Your task to perform on an android device: stop showing notifications on the lock screen Image 0: 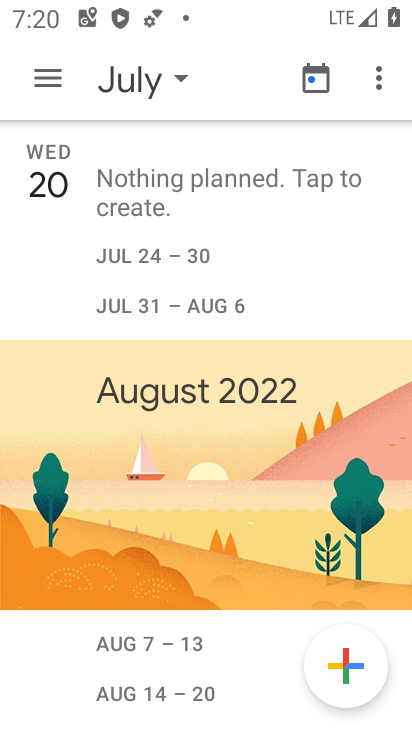
Step 0: press back button
Your task to perform on an android device: stop showing notifications on the lock screen Image 1: 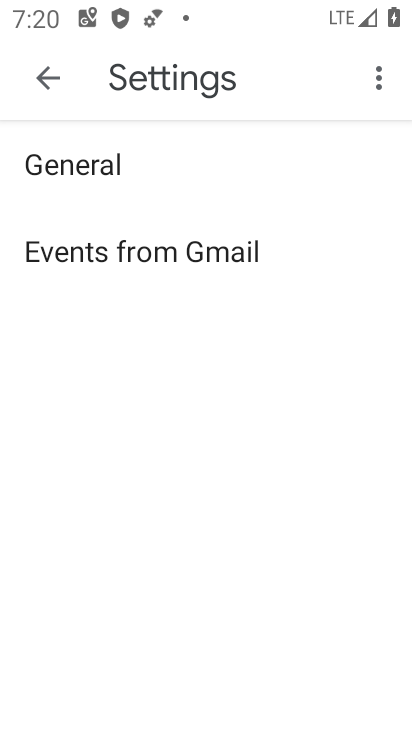
Step 1: press back button
Your task to perform on an android device: stop showing notifications on the lock screen Image 2: 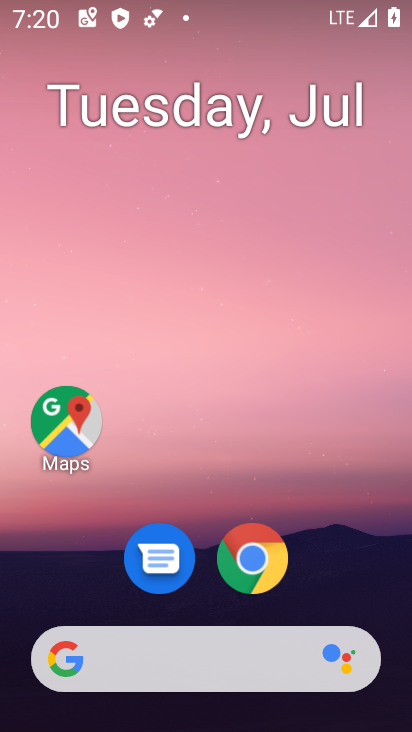
Step 2: drag from (107, 497) to (188, 9)
Your task to perform on an android device: stop showing notifications on the lock screen Image 3: 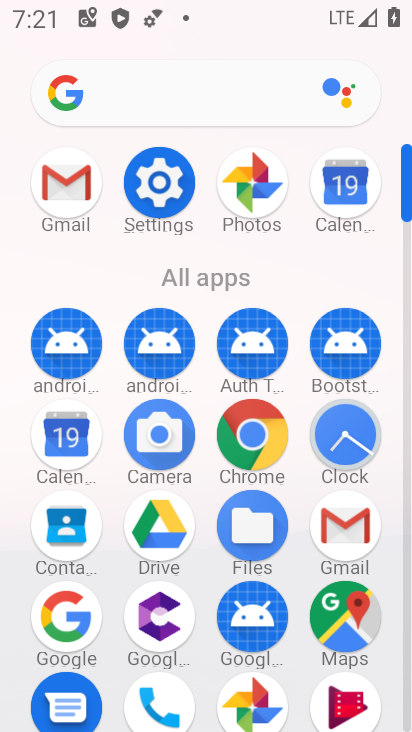
Step 3: click (156, 178)
Your task to perform on an android device: stop showing notifications on the lock screen Image 4: 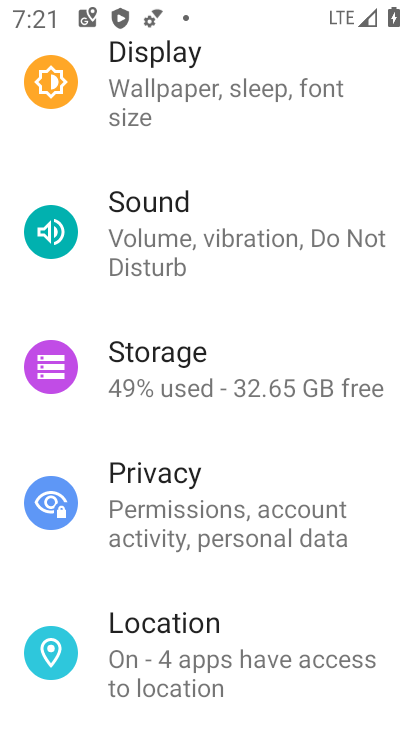
Step 4: drag from (175, 219) to (168, 700)
Your task to perform on an android device: stop showing notifications on the lock screen Image 5: 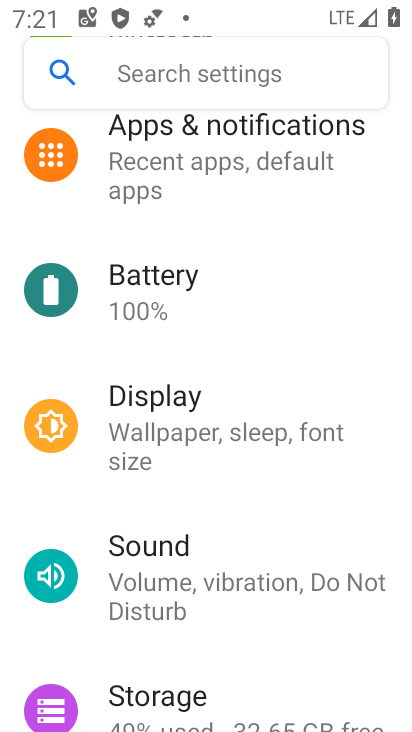
Step 5: click (185, 150)
Your task to perform on an android device: stop showing notifications on the lock screen Image 6: 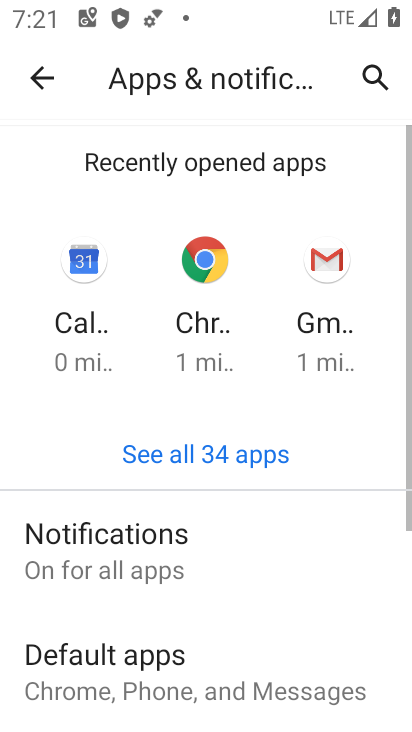
Step 6: click (96, 534)
Your task to perform on an android device: stop showing notifications on the lock screen Image 7: 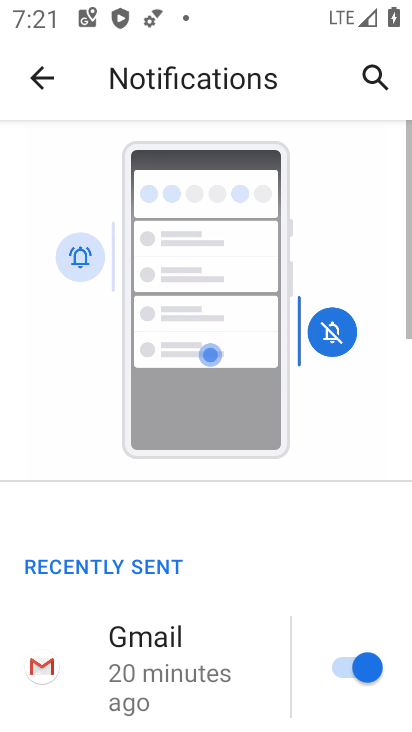
Step 7: drag from (111, 575) to (297, 61)
Your task to perform on an android device: stop showing notifications on the lock screen Image 8: 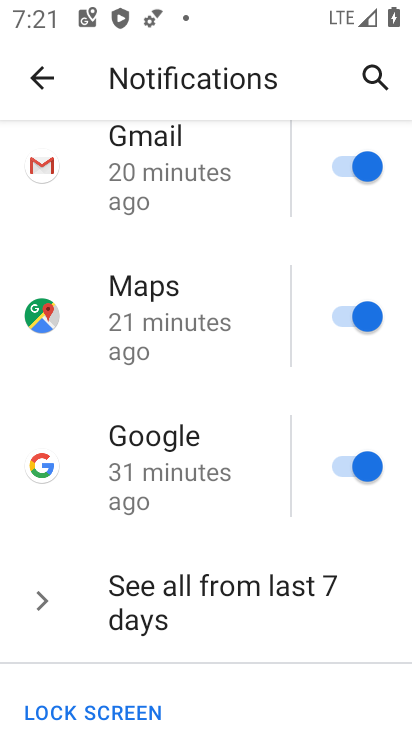
Step 8: drag from (187, 621) to (254, 169)
Your task to perform on an android device: stop showing notifications on the lock screen Image 9: 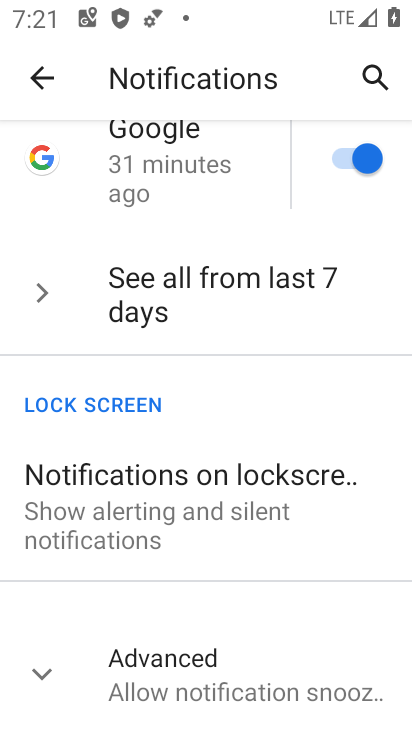
Step 9: click (194, 489)
Your task to perform on an android device: stop showing notifications on the lock screen Image 10: 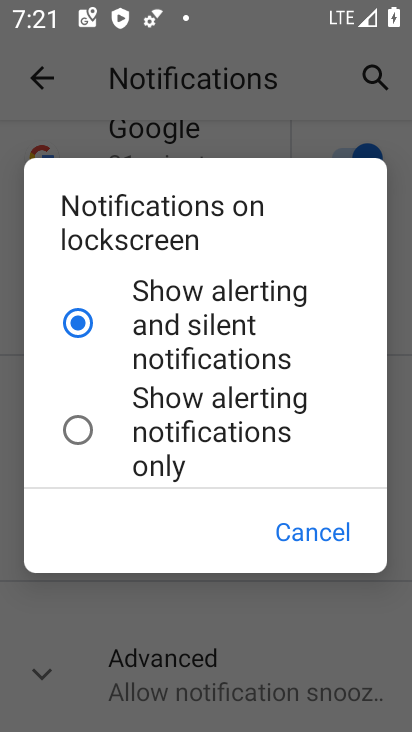
Step 10: drag from (180, 465) to (186, 114)
Your task to perform on an android device: stop showing notifications on the lock screen Image 11: 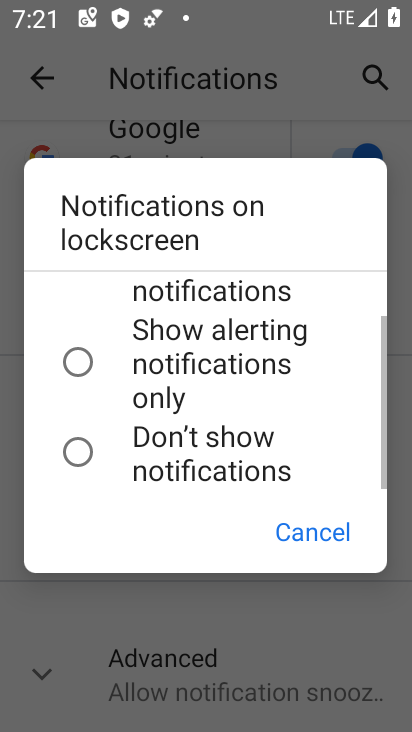
Step 11: click (68, 456)
Your task to perform on an android device: stop showing notifications on the lock screen Image 12: 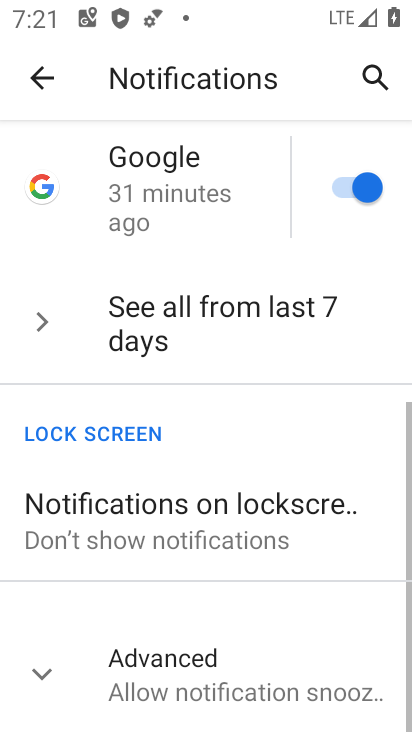
Step 12: task complete